Your task to perform on an android device: Search for pizza restaurants on Maps Image 0: 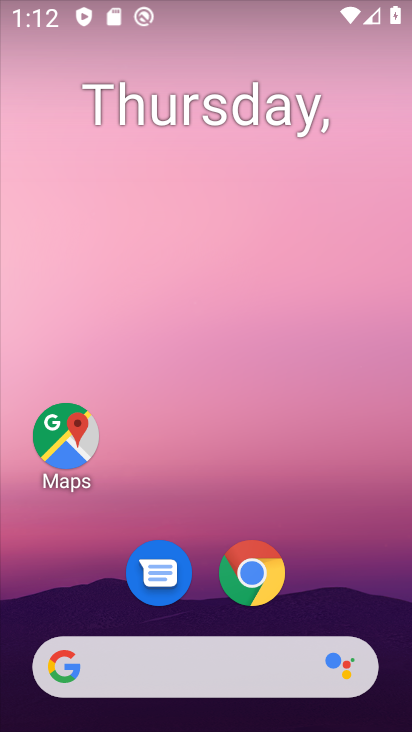
Step 0: drag from (315, 589) to (256, 48)
Your task to perform on an android device: Search for pizza restaurants on Maps Image 1: 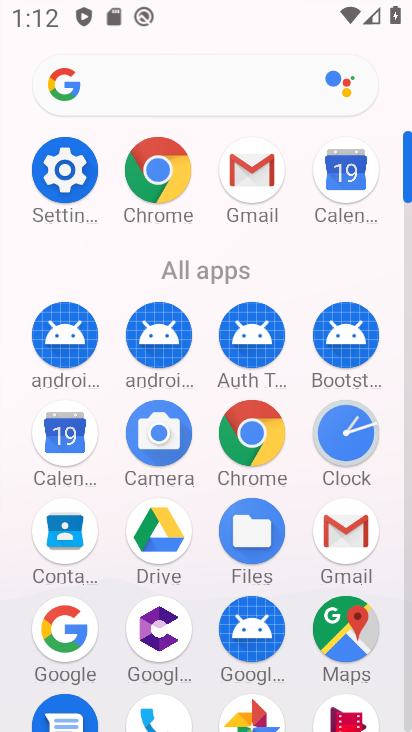
Step 1: drag from (21, 531) to (9, 186)
Your task to perform on an android device: Search for pizza restaurants on Maps Image 2: 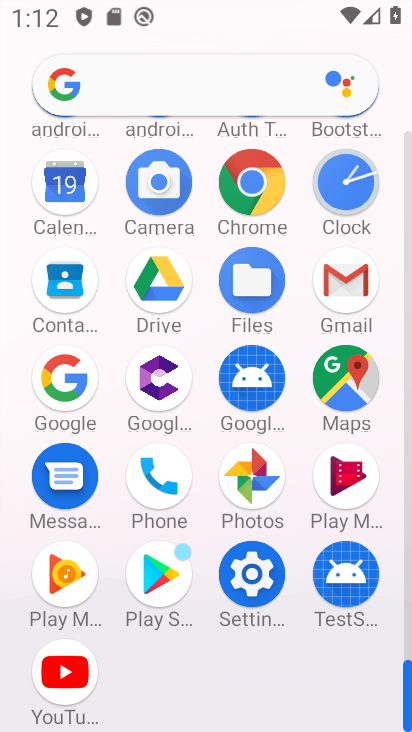
Step 2: click (344, 377)
Your task to perform on an android device: Search for pizza restaurants on Maps Image 3: 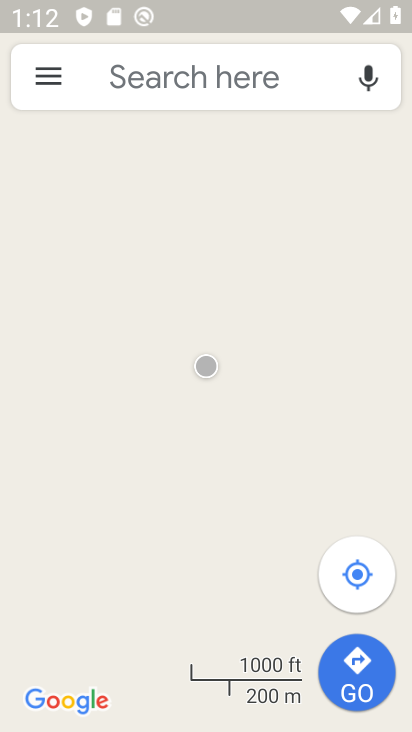
Step 3: click (294, 72)
Your task to perform on an android device: Search for pizza restaurants on Maps Image 4: 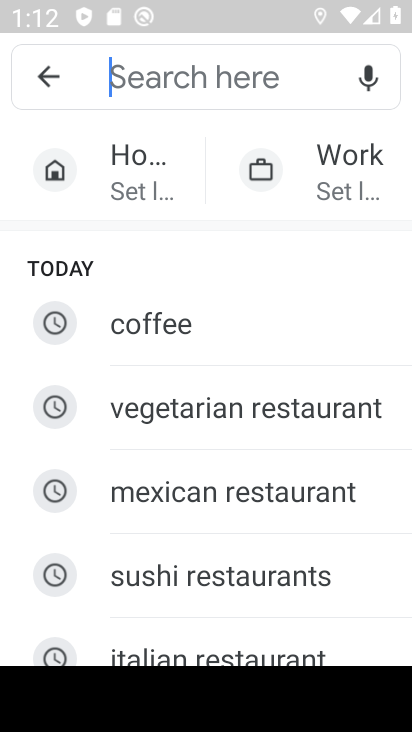
Step 4: drag from (237, 631) to (253, 368)
Your task to perform on an android device: Search for pizza restaurants on Maps Image 5: 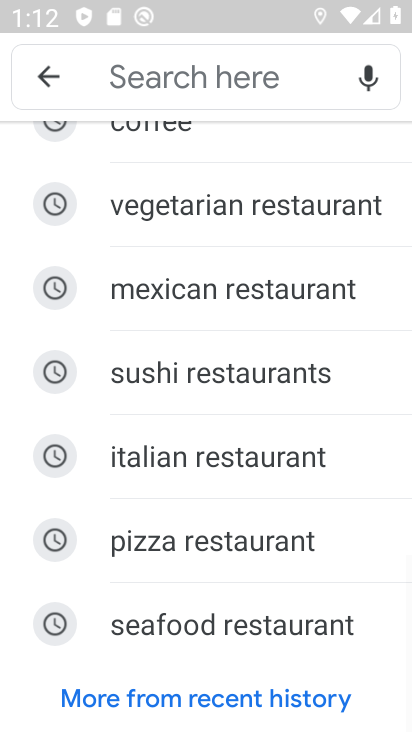
Step 5: click (240, 553)
Your task to perform on an android device: Search for pizza restaurants on Maps Image 6: 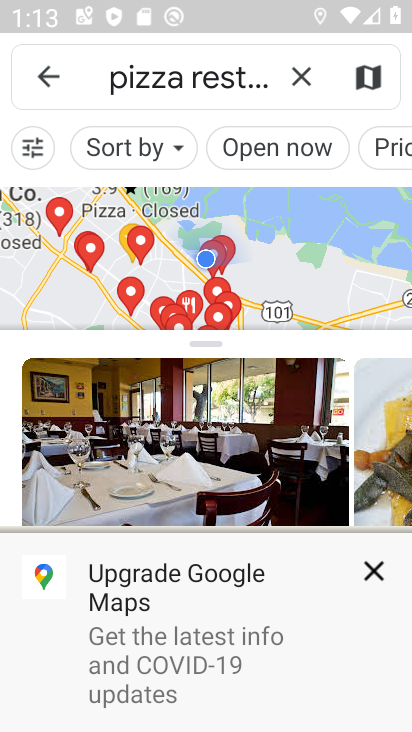
Step 6: click (378, 576)
Your task to perform on an android device: Search for pizza restaurants on Maps Image 7: 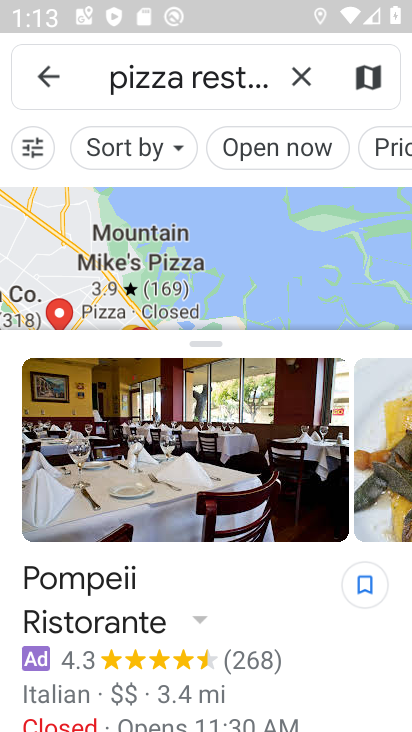
Step 7: task complete